Your task to perform on an android device: turn off wifi Image 0: 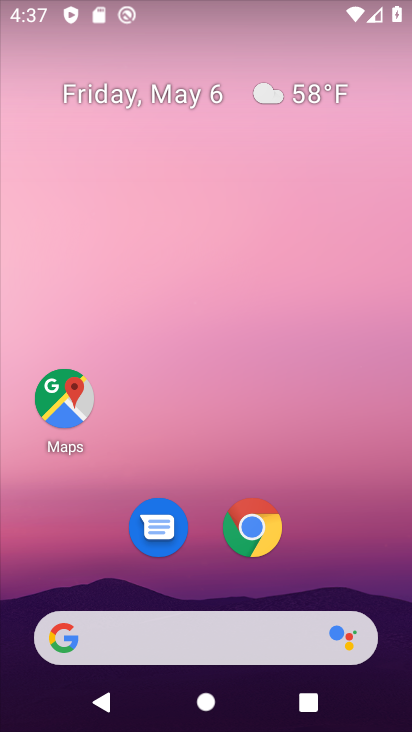
Step 0: drag from (222, 631) to (223, 249)
Your task to perform on an android device: turn off wifi Image 1: 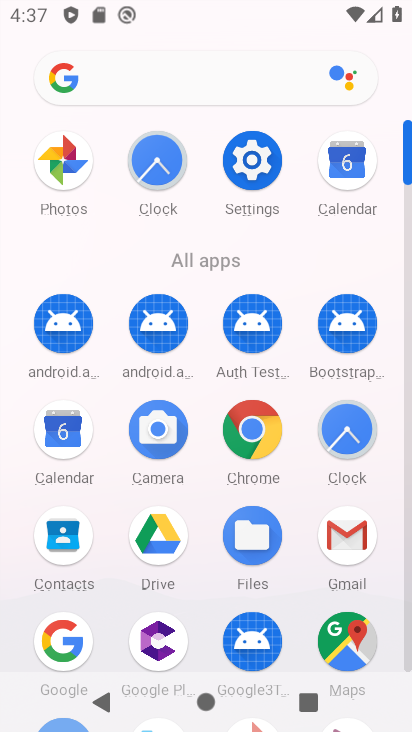
Step 1: click (249, 163)
Your task to perform on an android device: turn off wifi Image 2: 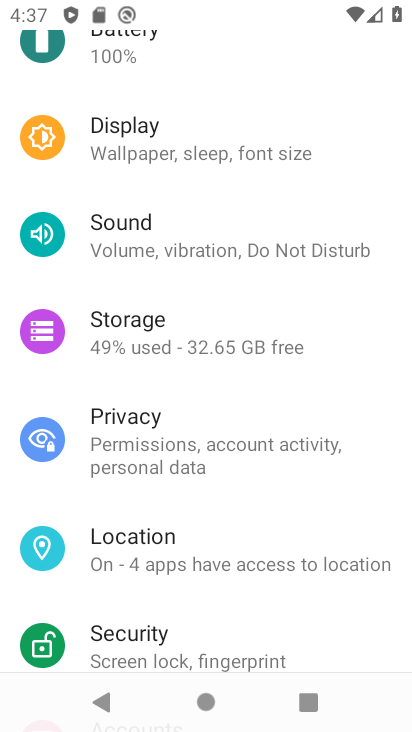
Step 2: drag from (243, 114) to (241, 631)
Your task to perform on an android device: turn off wifi Image 3: 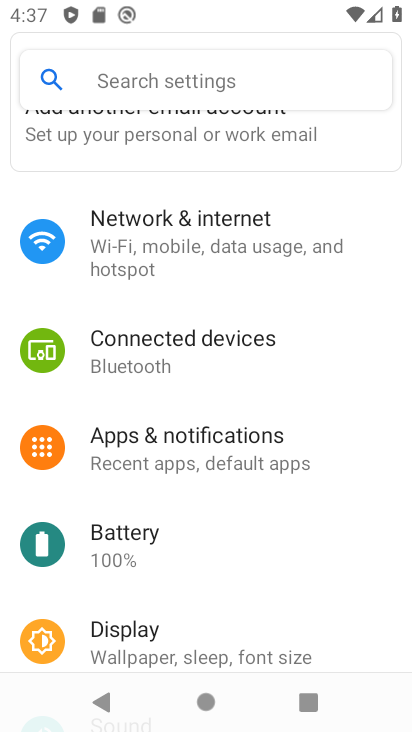
Step 3: drag from (229, 204) to (252, 391)
Your task to perform on an android device: turn off wifi Image 4: 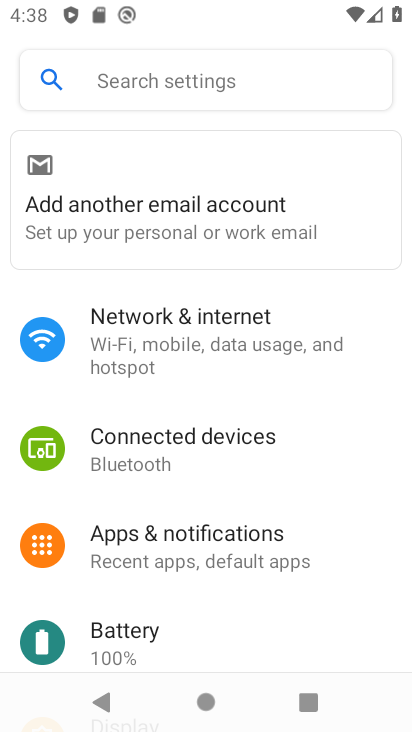
Step 4: click (180, 328)
Your task to perform on an android device: turn off wifi Image 5: 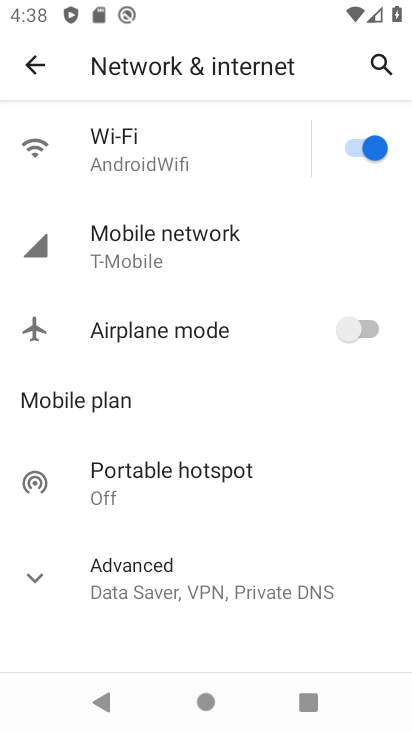
Step 5: click (353, 149)
Your task to perform on an android device: turn off wifi Image 6: 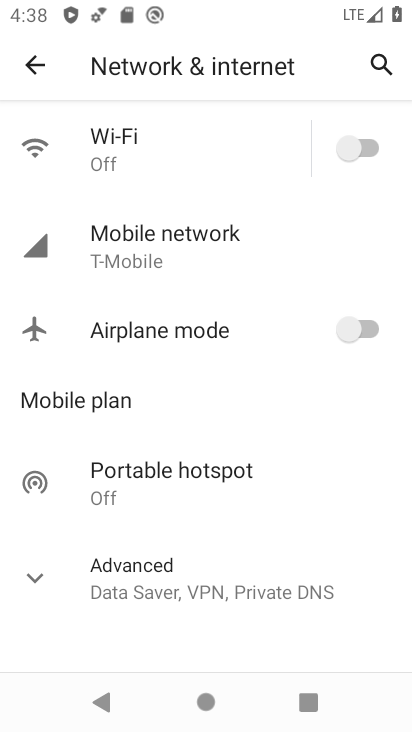
Step 6: task complete